Your task to perform on an android device: Open internet settings Image 0: 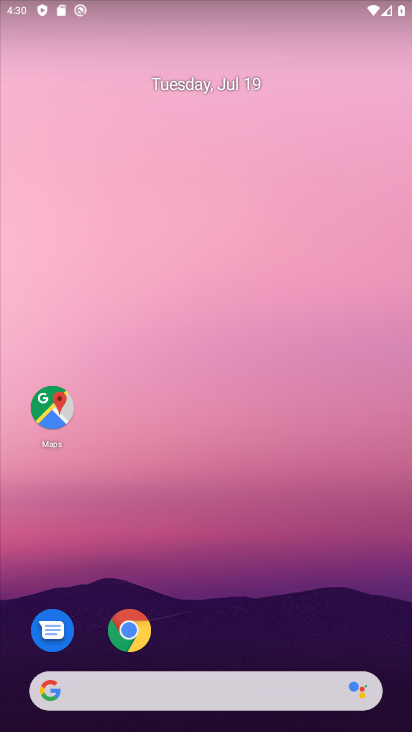
Step 0: drag from (190, 673) to (135, 257)
Your task to perform on an android device: Open internet settings Image 1: 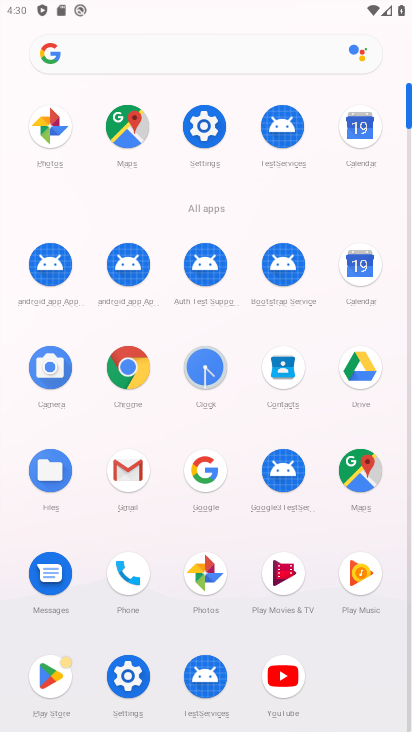
Step 1: drag from (241, 640) to (173, 231)
Your task to perform on an android device: Open internet settings Image 2: 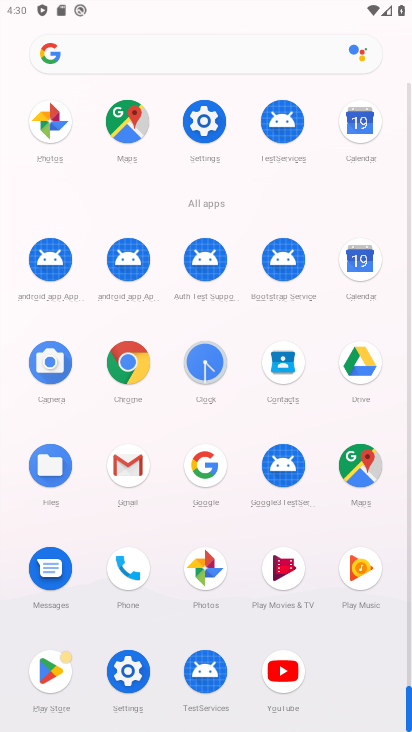
Step 2: click (208, 112)
Your task to perform on an android device: Open internet settings Image 3: 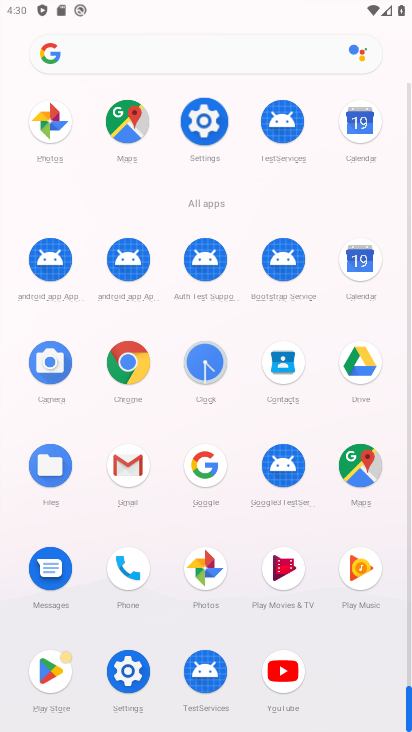
Step 3: click (208, 111)
Your task to perform on an android device: Open internet settings Image 4: 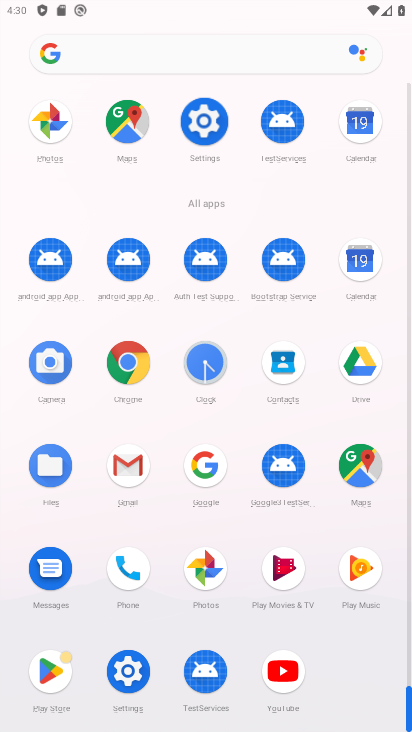
Step 4: click (209, 111)
Your task to perform on an android device: Open internet settings Image 5: 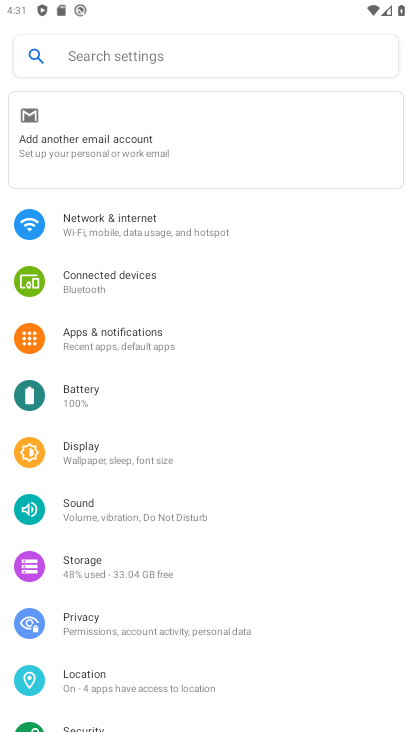
Step 5: drag from (89, 309) to (137, 336)
Your task to perform on an android device: Open internet settings Image 6: 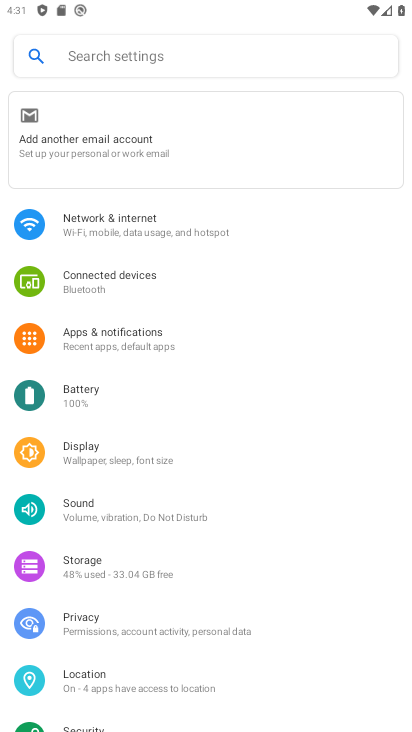
Step 6: click (136, 231)
Your task to perform on an android device: Open internet settings Image 7: 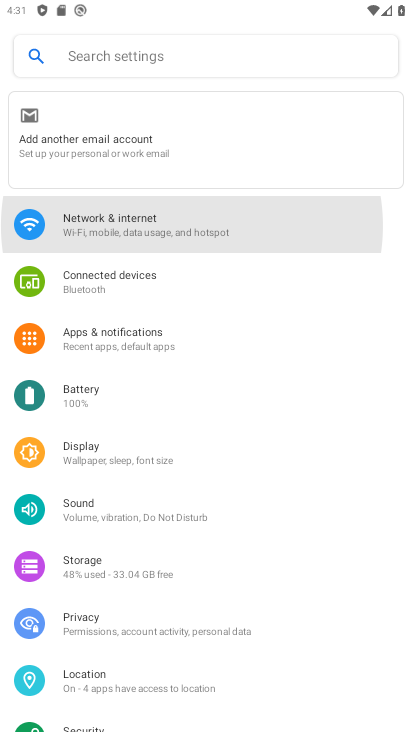
Step 7: click (136, 231)
Your task to perform on an android device: Open internet settings Image 8: 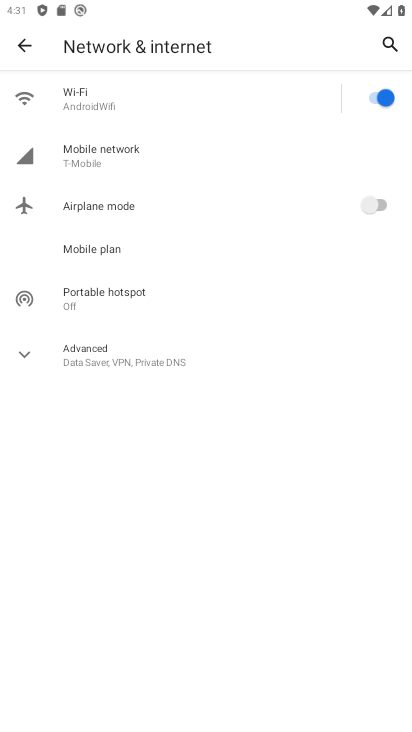
Step 8: task complete